Your task to perform on an android device: clear history in the chrome app Image 0: 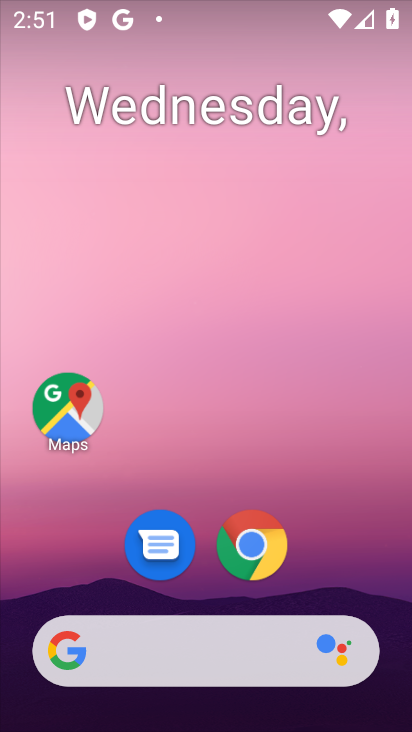
Step 0: drag from (91, 588) to (243, 103)
Your task to perform on an android device: clear history in the chrome app Image 1: 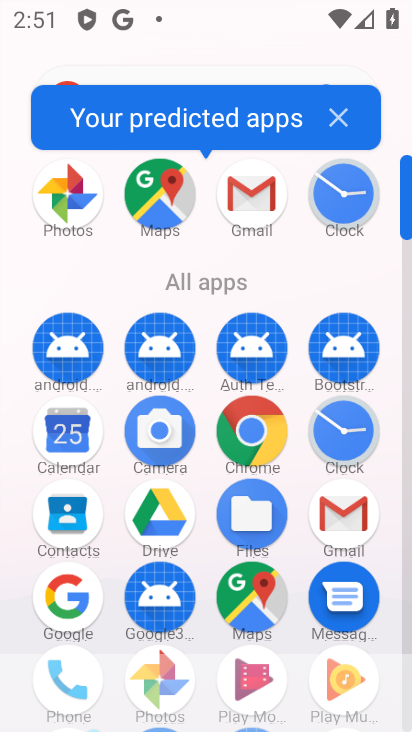
Step 1: click (244, 437)
Your task to perform on an android device: clear history in the chrome app Image 2: 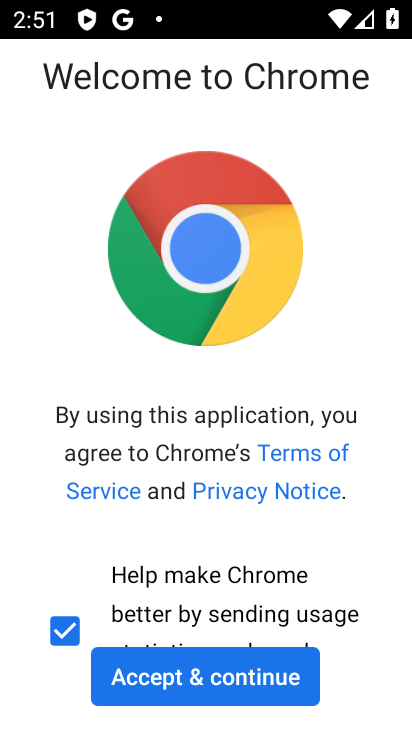
Step 2: click (254, 679)
Your task to perform on an android device: clear history in the chrome app Image 3: 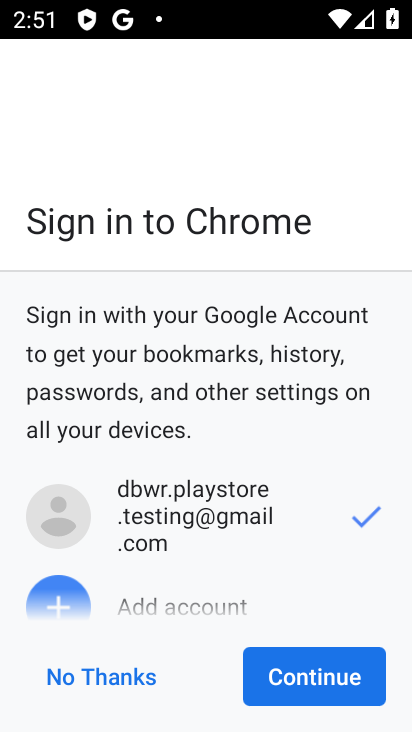
Step 3: click (317, 690)
Your task to perform on an android device: clear history in the chrome app Image 4: 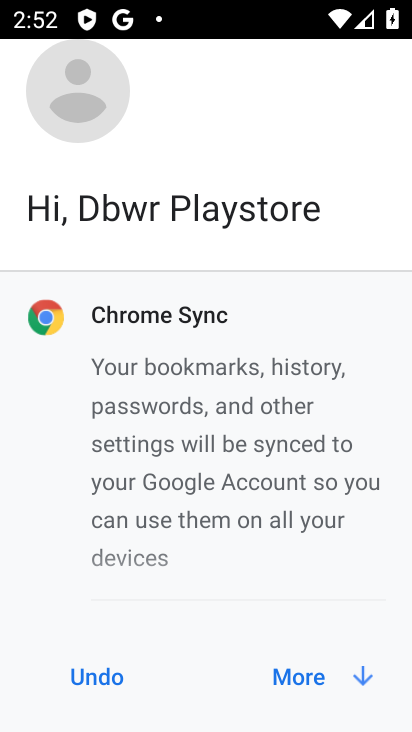
Step 4: click (337, 690)
Your task to perform on an android device: clear history in the chrome app Image 5: 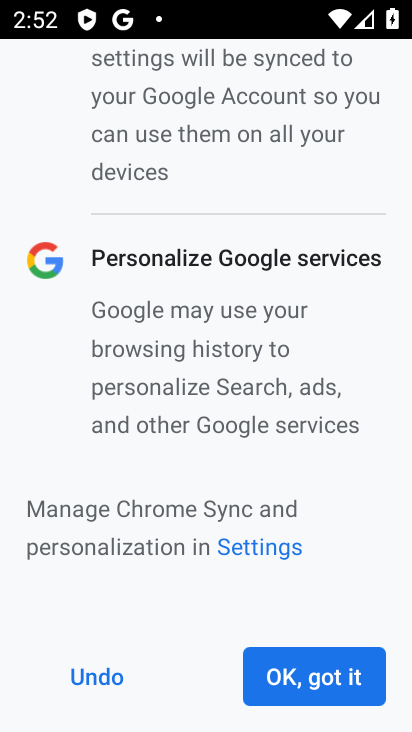
Step 5: click (331, 666)
Your task to perform on an android device: clear history in the chrome app Image 6: 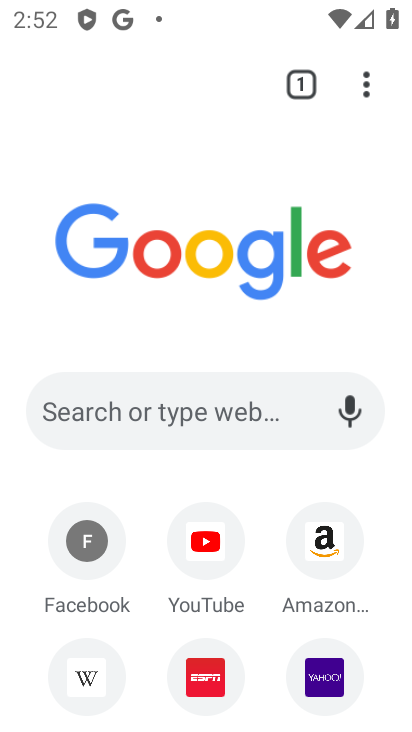
Step 6: task complete